Your task to perform on an android device: change the upload size in google photos Image 0: 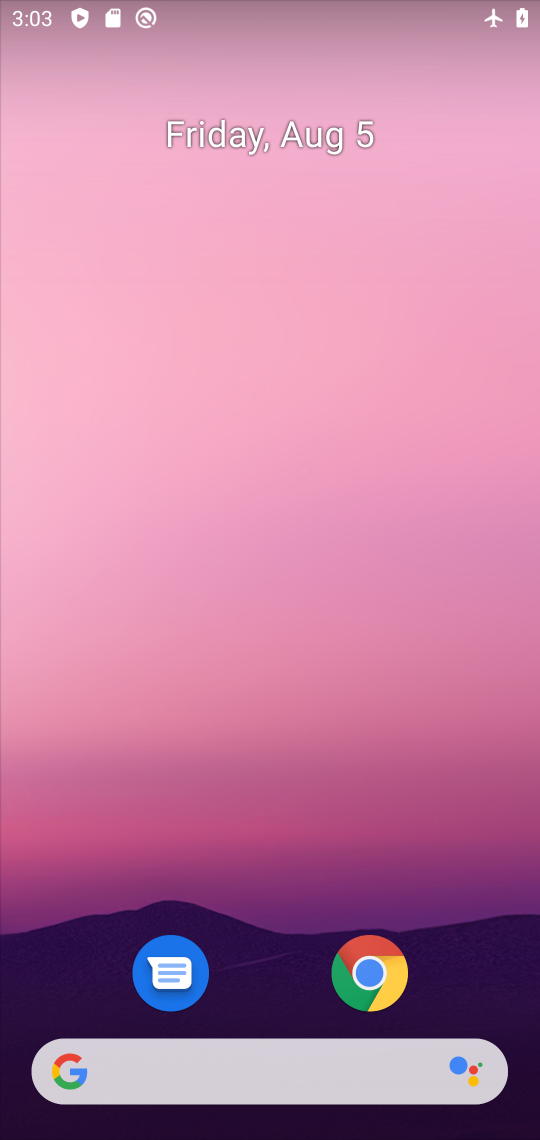
Step 0: drag from (297, 1018) to (220, 52)
Your task to perform on an android device: change the upload size in google photos Image 1: 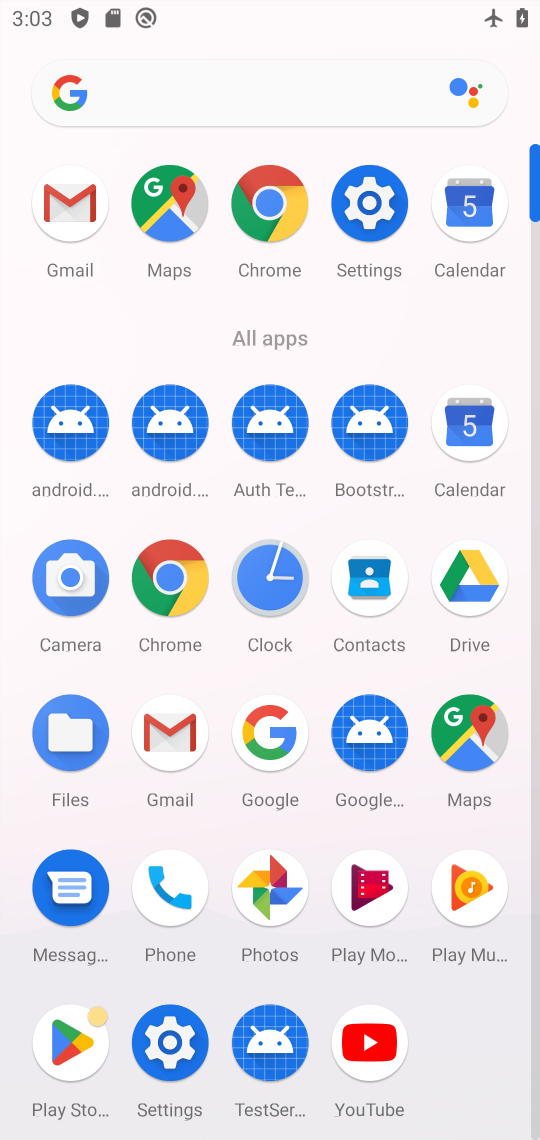
Step 1: click (268, 915)
Your task to perform on an android device: change the upload size in google photos Image 2: 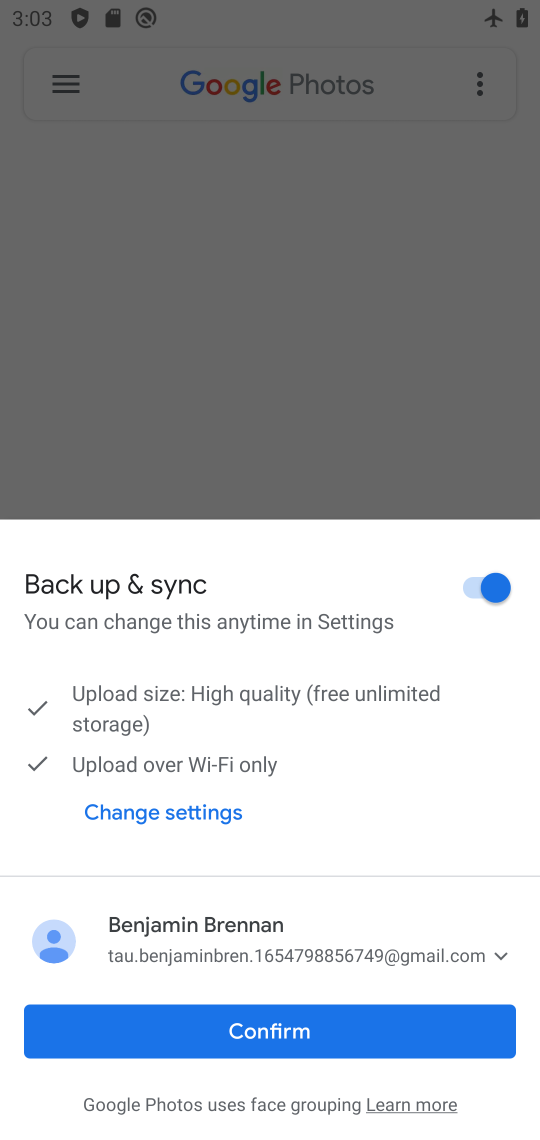
Step 2: click (73, 79)
Your task to perform on an android device: change the upload size in google photos Image 3: 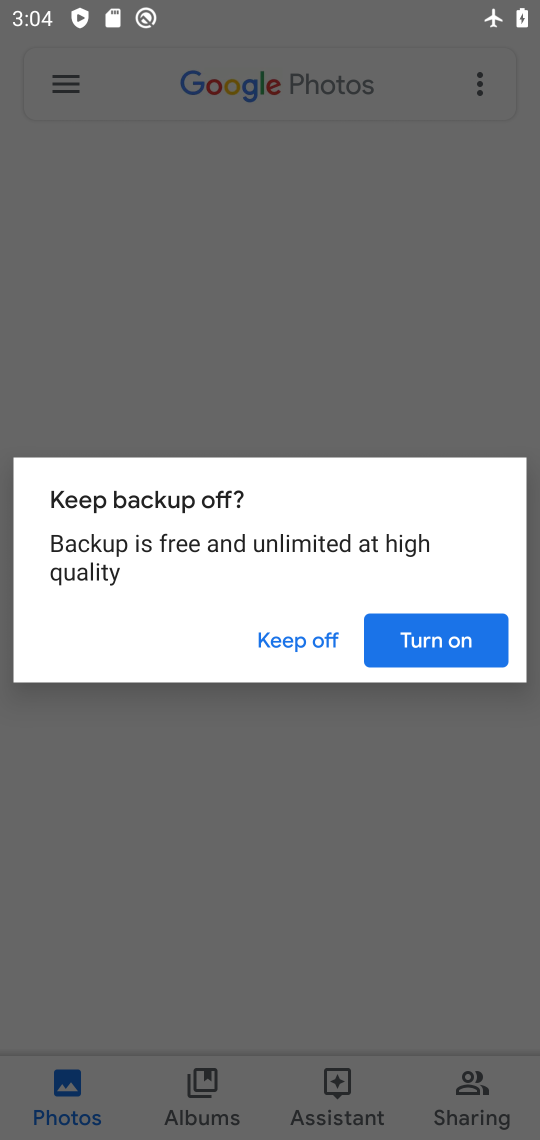
Step 3: click (254, 630)
Your task to perform on an android device: change the upload size in google photos Image 4: 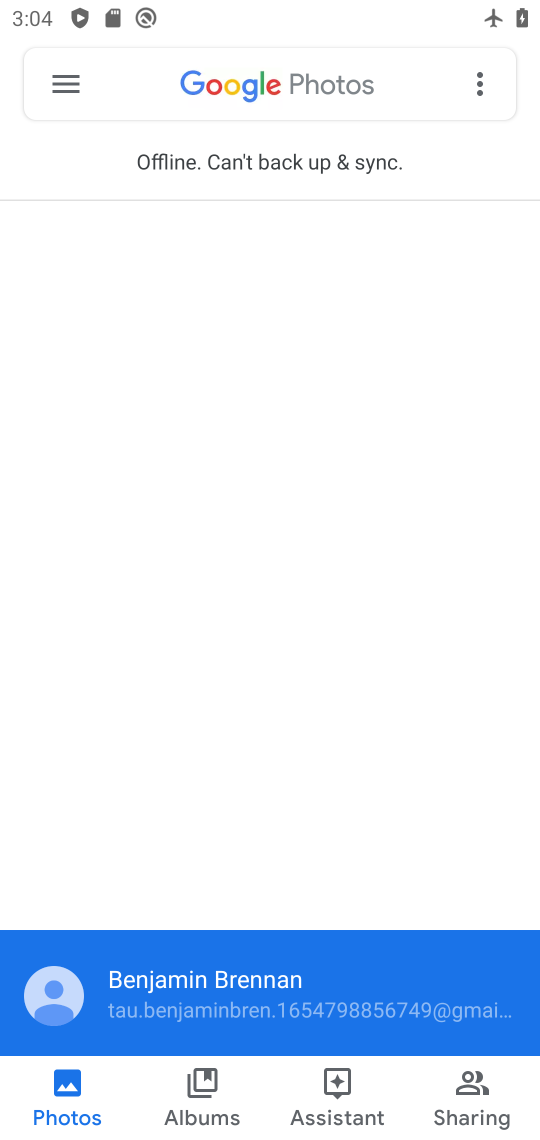
Step 4: click (45, 88)
Your task to perform on an android device: change the upload size in google photos Image 5: 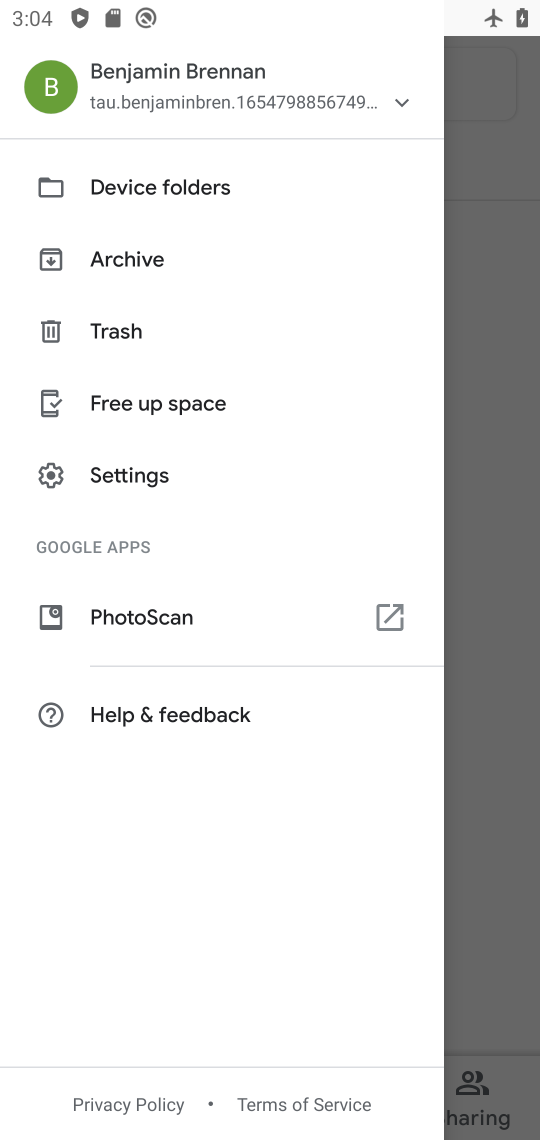
Step 5: click (104, 492)
Your task to perform on an android device: change the upload size in google photos Image 6: 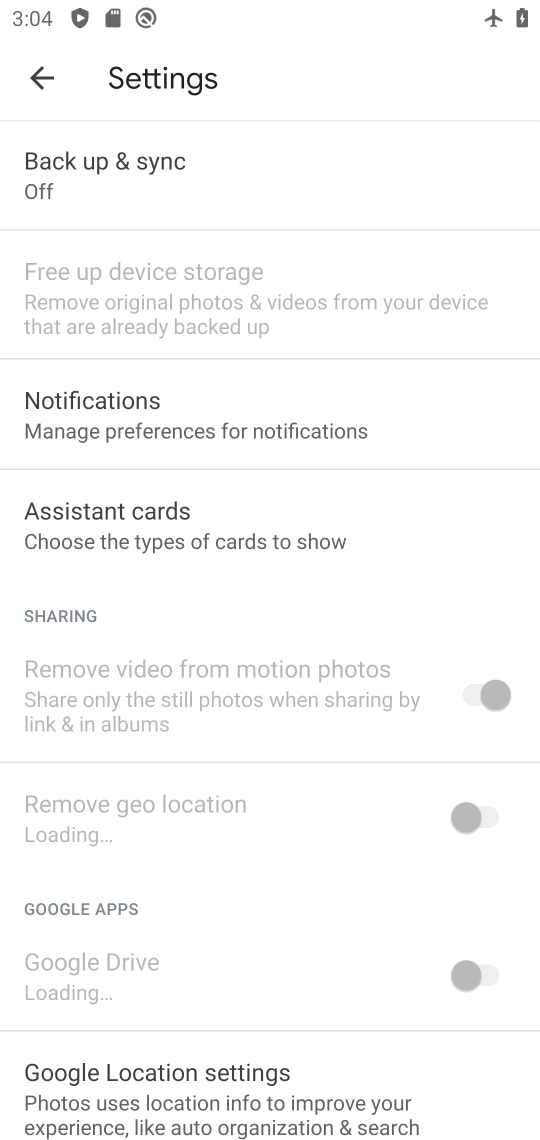
Step 6: drag from (340, 781) to (267, 62)
Your task to perform on an android device: change the upload size in google photos Image 7: 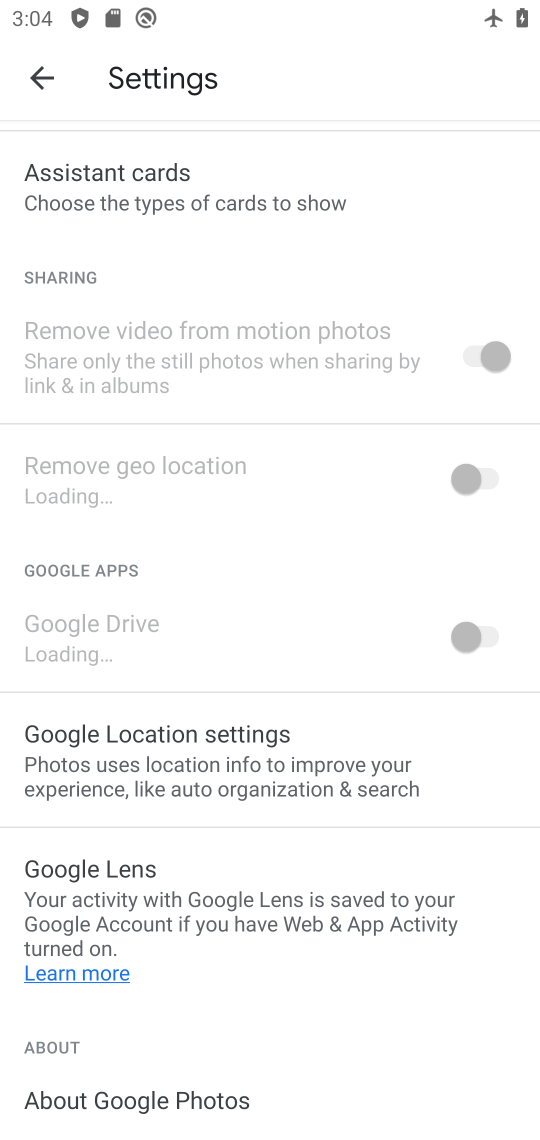
Step 7: drag from (220, 329) to (224, 923)
Your task to perform on an android device: change the upload size in google photos Image 8: 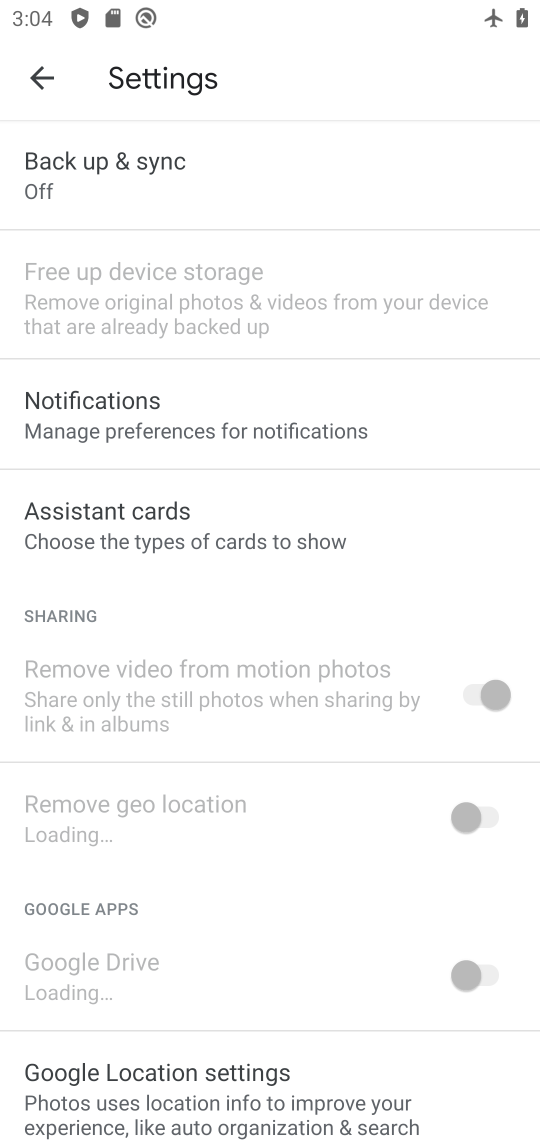
Step 8: click (73, 167)
Your task to perform on an android device: change the upload size in google photos Image 9: 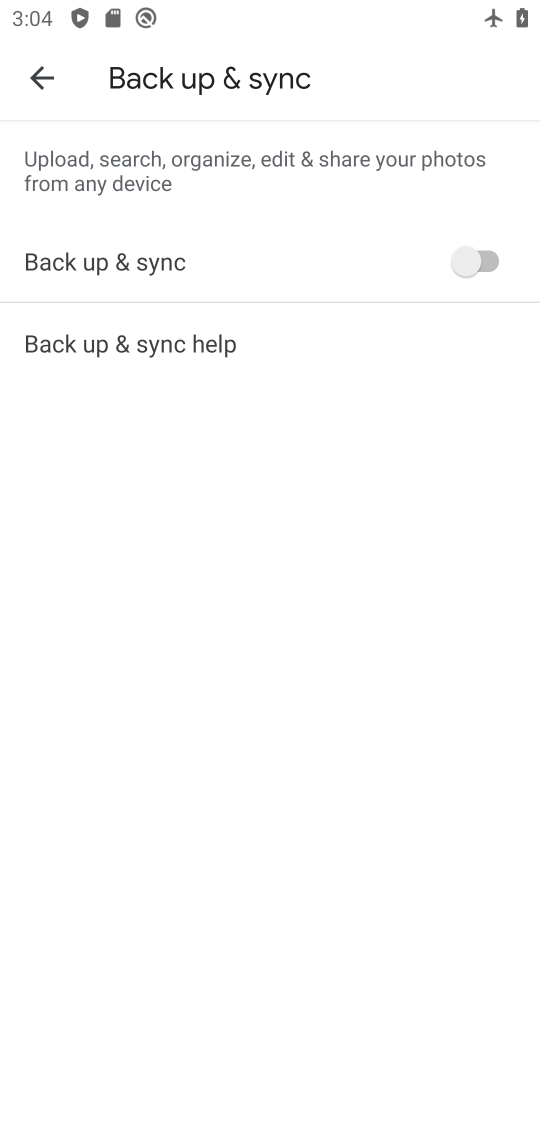
Step 9: click (465, 264)
Your task to perform on an android device: change the upload size in google photos Image 10: 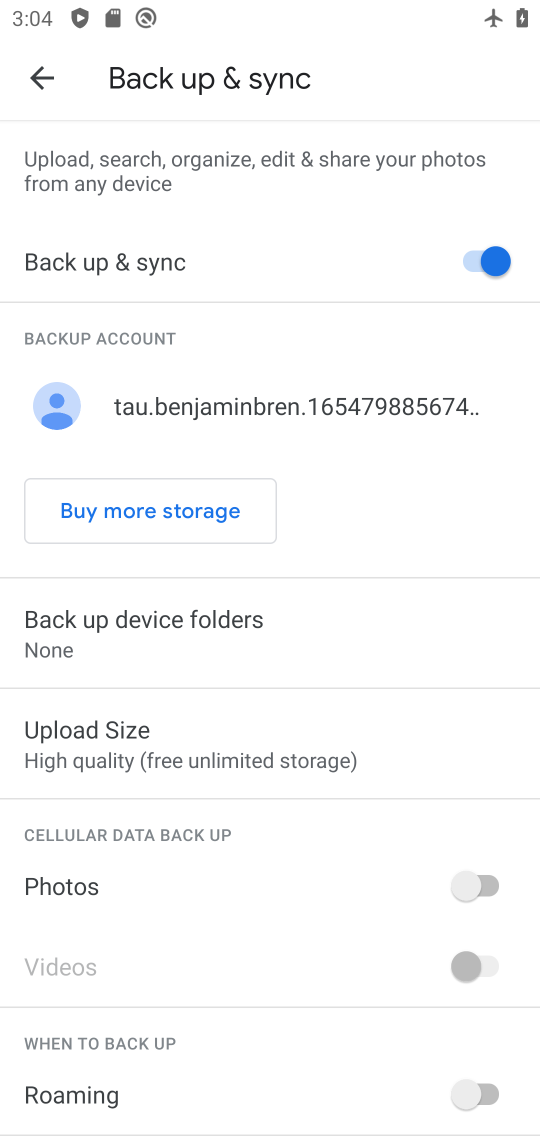
Step 10: click (128, 755)
Your task to perform on an android device: change the upload size in google photos Image 11: 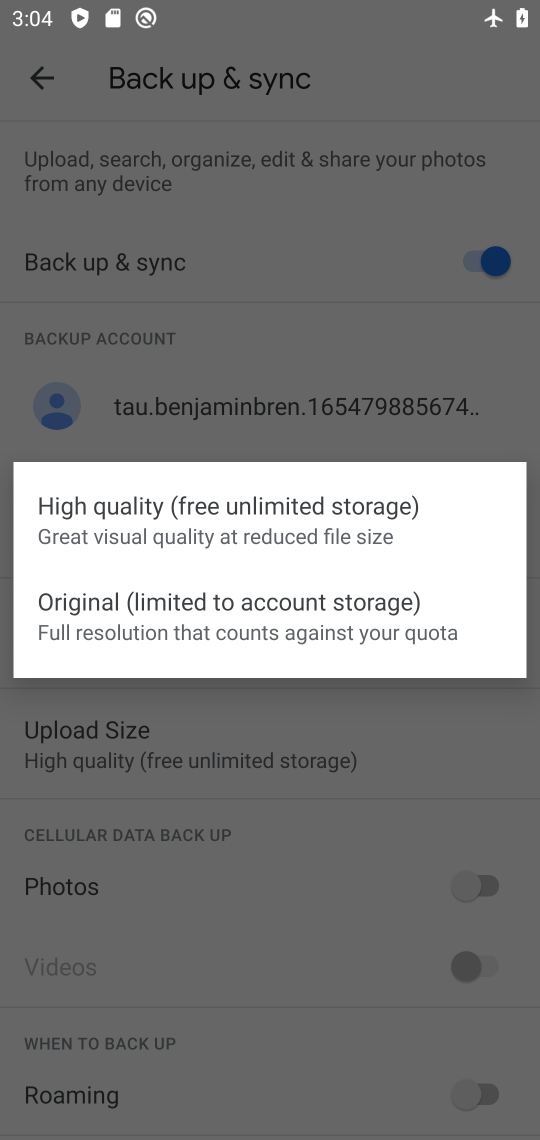
Step 11: click (222, 624)
Your task to perform on an android device: change the upload size in google photos Image 12: 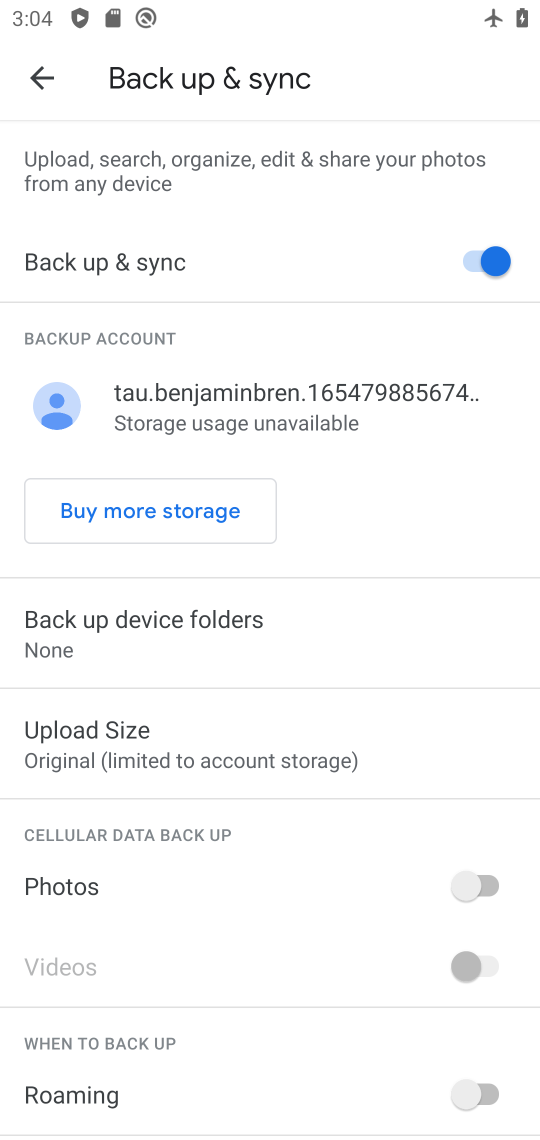
Step 12: task complete